Your task to perform on an android device: Go to accessibility settings Image 0: 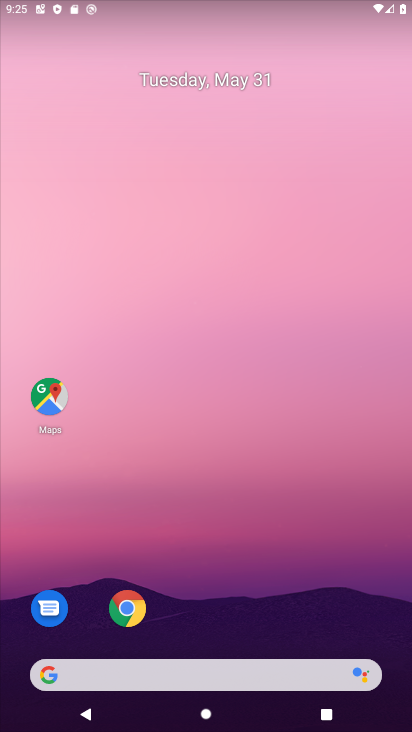
Step 0: drag from (299, 616) to (227, 26)
Your task to perform on an android device: Go to accessibility settings Image 1: 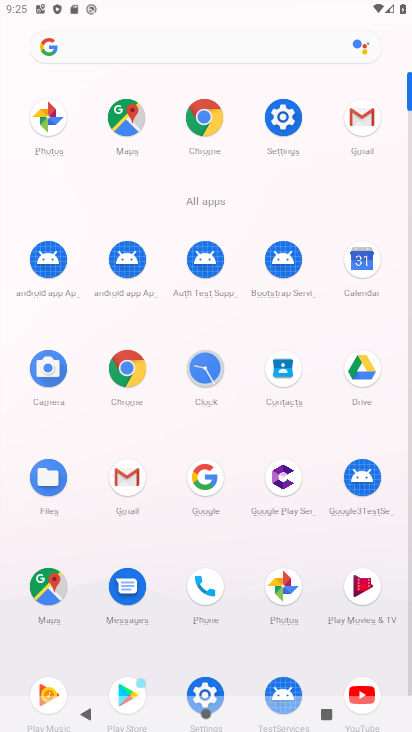
Step 1: click (296, 123)
Your task to perform on an android device: Go to accessibility settings Image 2: 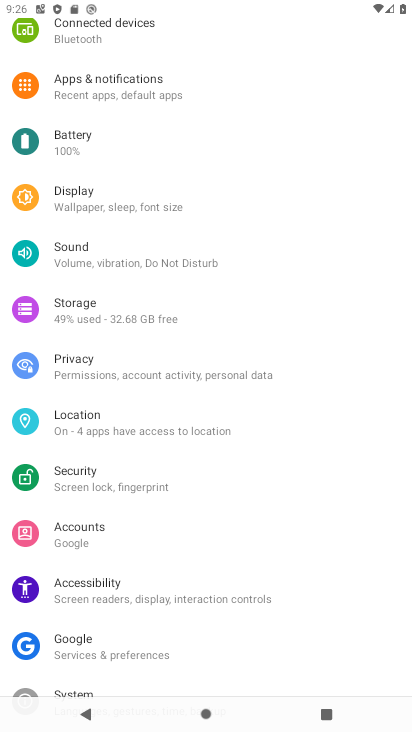
Step 2: click (136, 581)
Your task to perform on an android device: Go to accessibility settings Image 3: 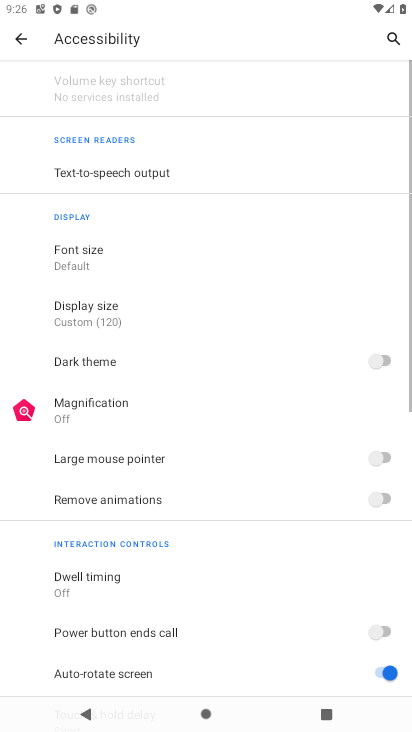
Step 3: task complete